Your task to perform on an android device: Go to Yahoo.com Image 0: 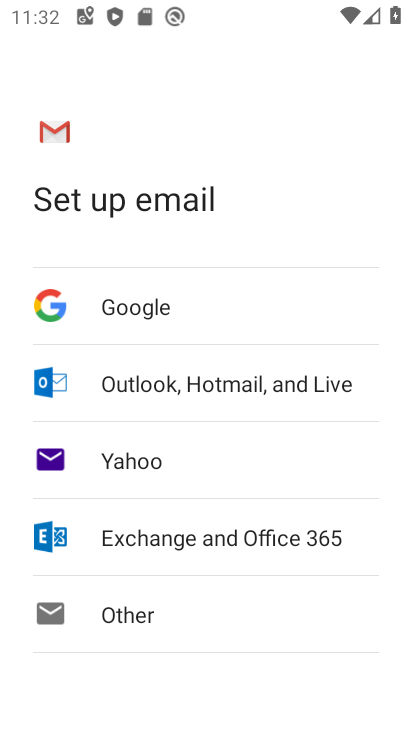
Step 0: press home button
Your task to perform on an android device: Go to Yahoo.com Image 1: 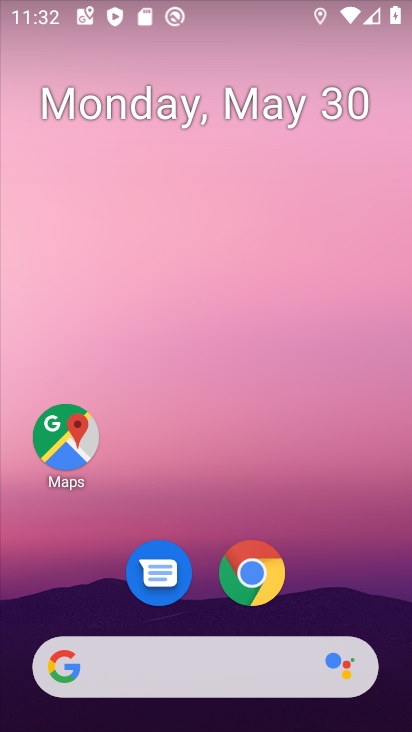
Step 1: click (149, 678)
Your task to perform on an android device: Go to Yahoo.com Image 2: 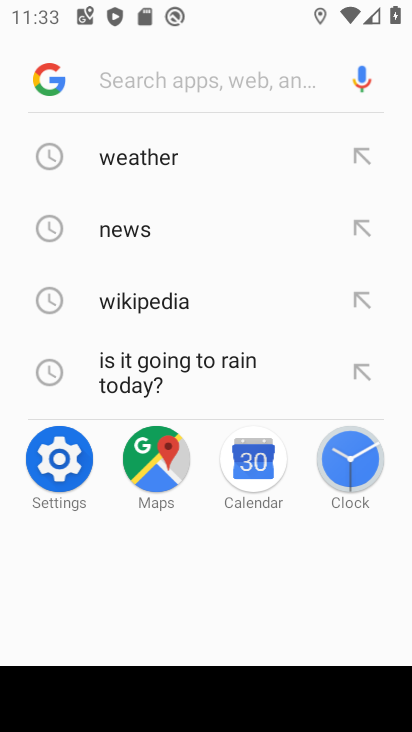
Step 2: type "yahoo.com"
Your task to perform on an android device: Go to Yahoo.com Image 3: 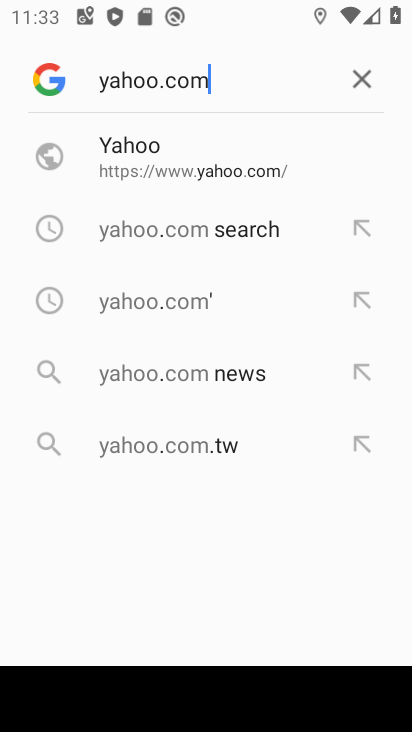
Step 3: click (177, 181)
Your task to perform on an android device: Go to Yahoo.com Image 4: 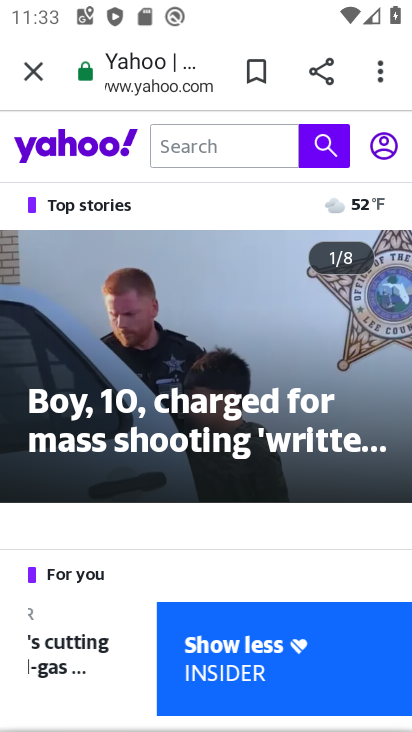
Step 4: task complete